Your task to perform on an android device: uninstall "Upside-Cash back on gas & food" Image 0: 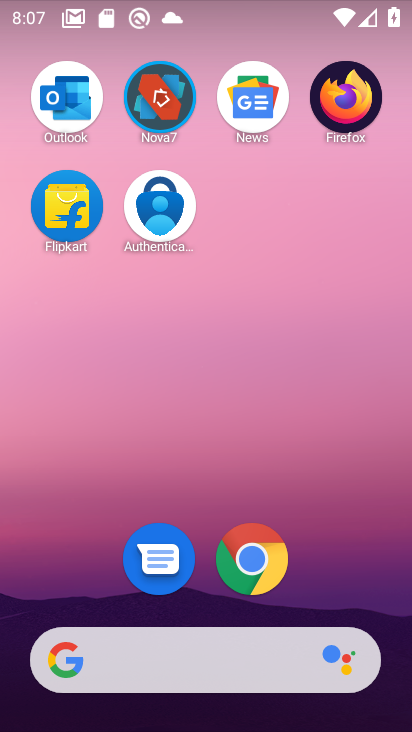
Step 0: drag from (182, 539) to (162, 166)
Your task to perform on an android device: uninstall "Upside-Cash back on gas & food" Image 1: 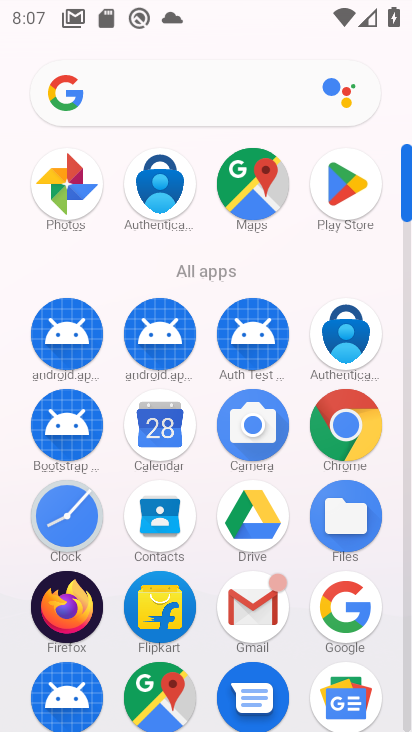
Step 1: click (343, 202)
Your task to perform on an android device: uninstall "Upside-Cash back on gas & food" Image 2: 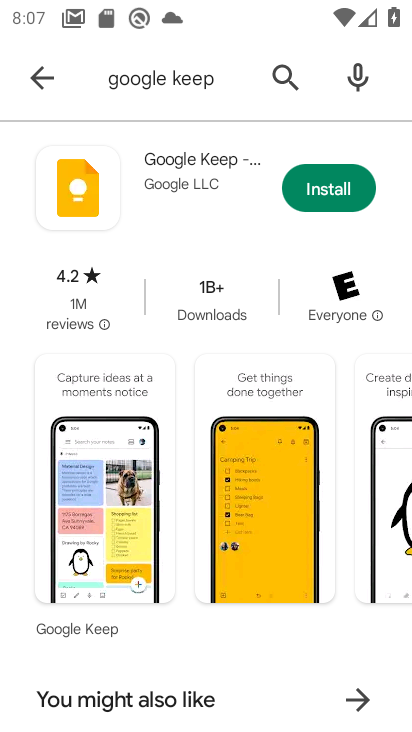
Step 2: click (100, 76)
Your task to perform on an android device: uninstall "Upside-Cash back on gas & food" Image 3: 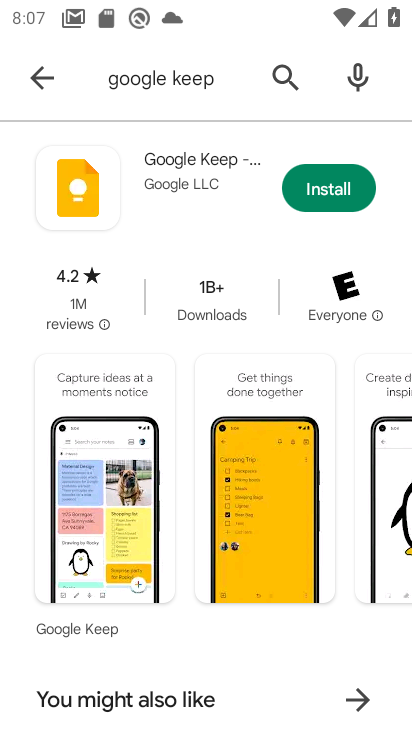
Step 3: click (170, 87)
Your task to perform on an android device: uninstall "Upside-Cash back on gas & food" Image 4: 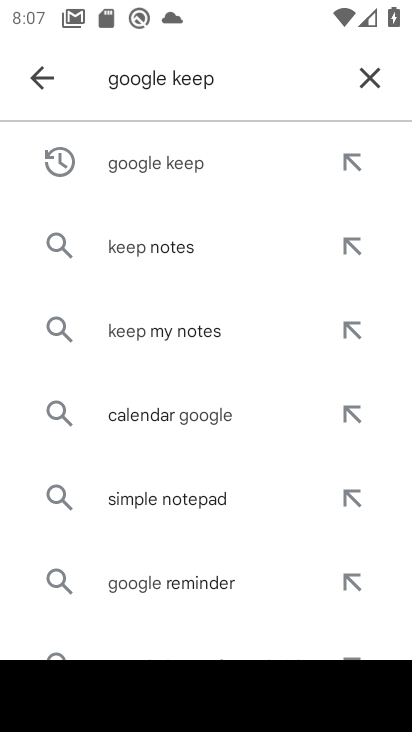
Step 4: click (365, 77)
Your task to perform on an android device: uninstall "Upside-Cash back on gas & food" Image 5: 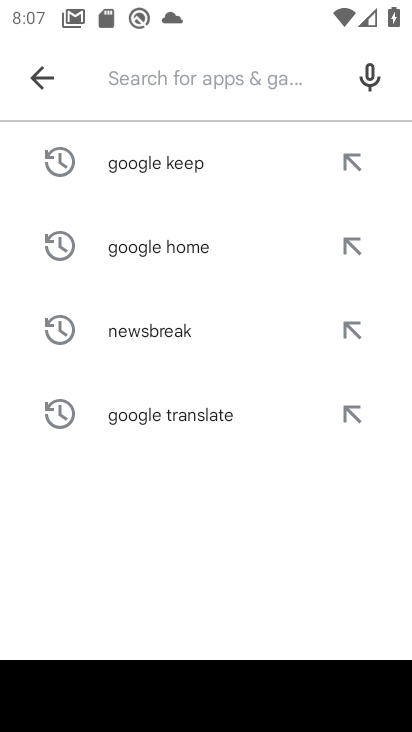
Step 5: type "Upside "
Your task to perform on an android device: uninstall "Upside-Cash back on gas & food" Image 6: 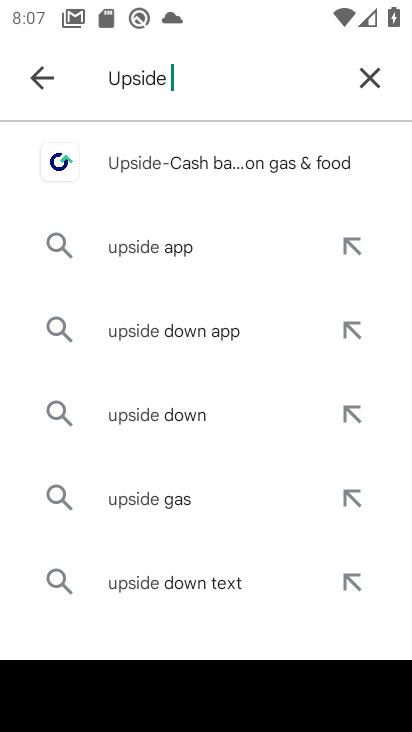
Step 6: click (154, 167)
Your task to perform on an android device: uninstall "Upside-Cash back on gas & food" Image 7: 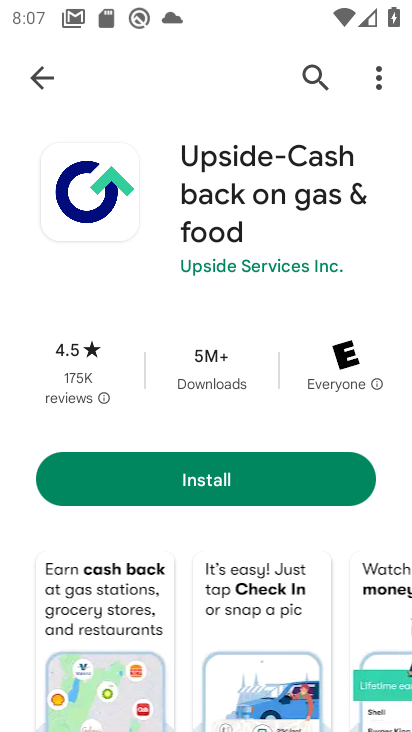
Step 7: task complete